Your task to perform on an android device: What's the weather going to be this weekend? Image 0: 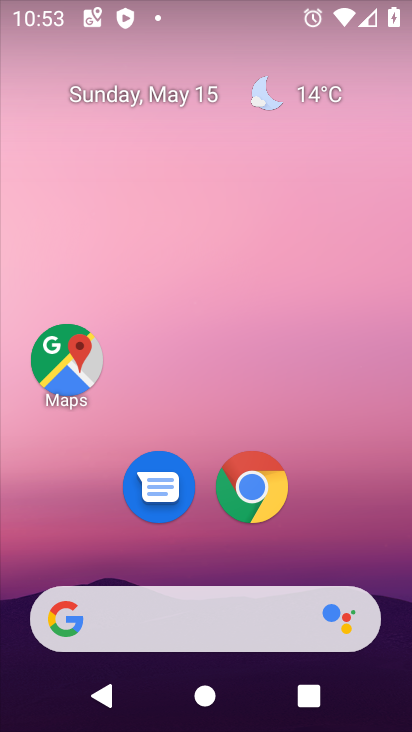
Step 0: click (314, 84)
Your task to perform on an android device: What's the weather going to be this weekend? Image 1: 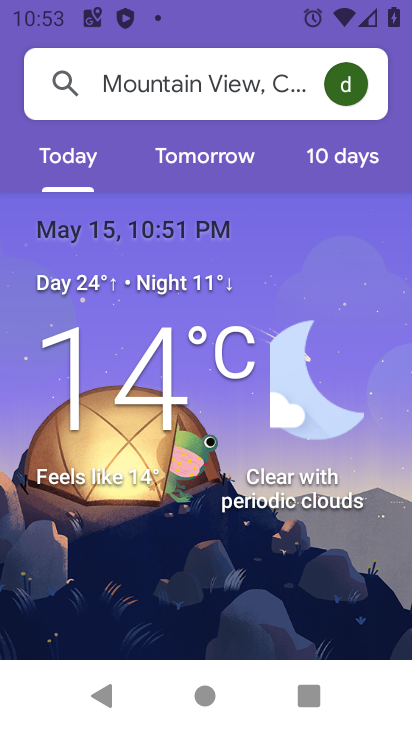
Step 1: click (351, 148)
Your task to perform on an android device: What's the weather going to be this weekend? Image 2: 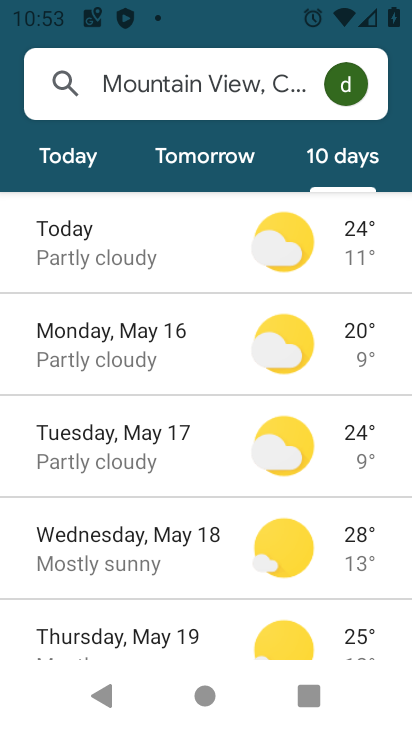
Step 2: task complete